Your task to perform on an android device: toggle javascript in the chrome app Image 0: 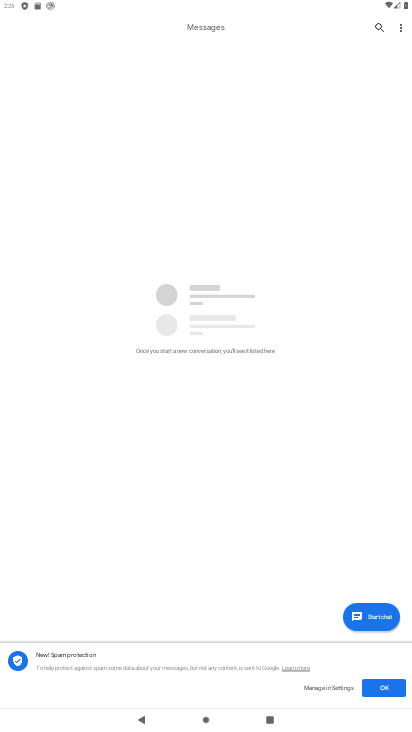
Step 0: press home button
Your task to perform on an android device: toggle javascript in the chrome app Image 1: 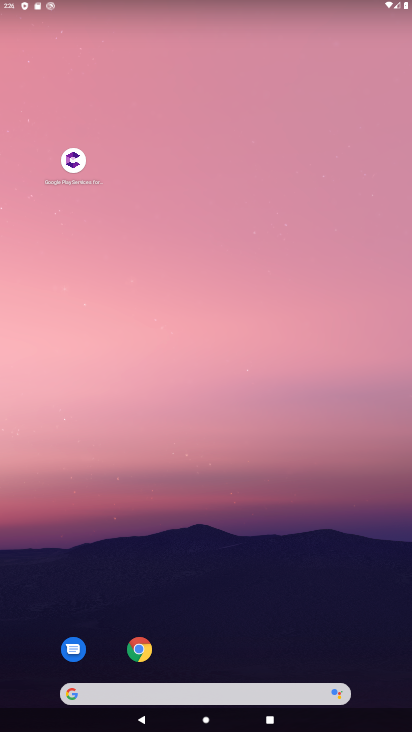
Step 1: drag from (199, 619) to (157, 132)
Your task to perform on an android device: toggle javascript in the chrome app Image 2: 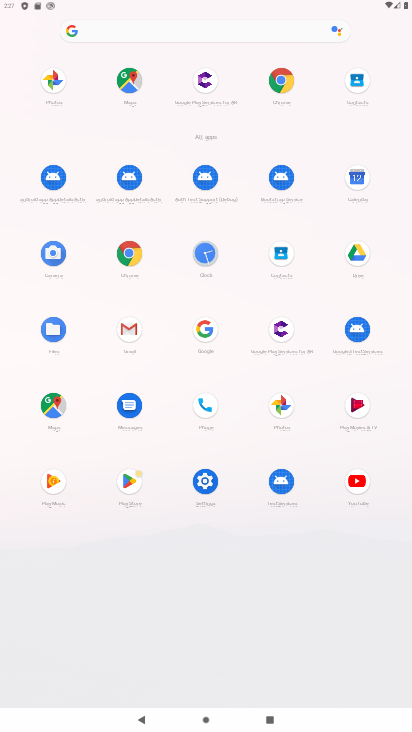
Step 2: click (288, 70)
Your task to perform on an android device: toggle javascript in the chrome app Image 3: 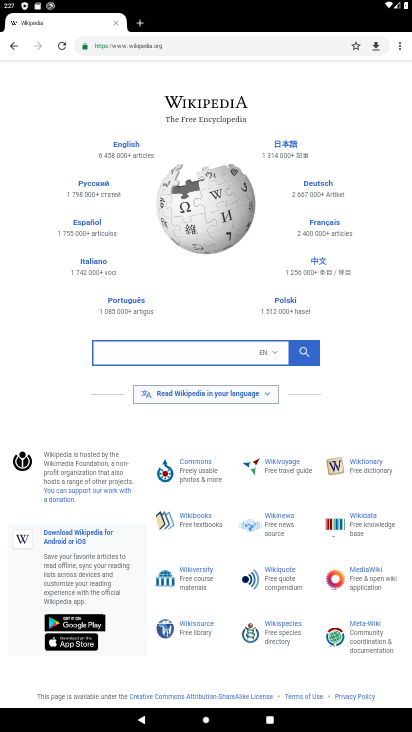
Step 3: drag from (395, 41) to (293, 301)
Your task to perform on an android device: toggle javascript in the chrome app Image 4: 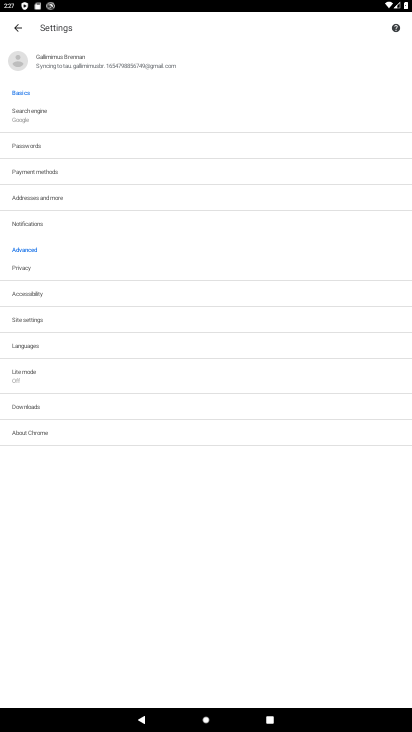
Step 4: click (6, 313)
Your task to perform on an android device: toggle javascript in the chrome app Image 5: 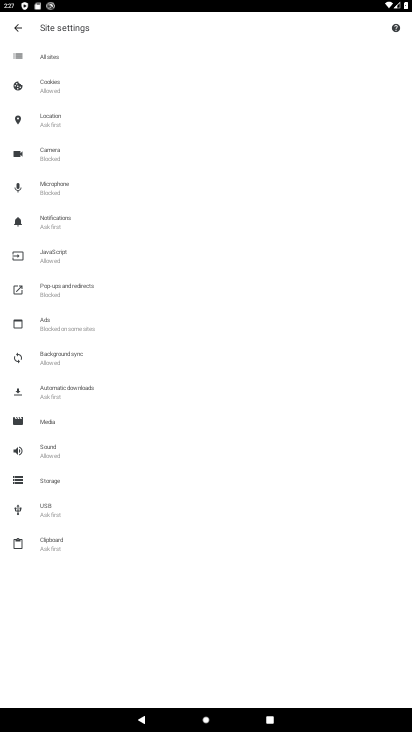
Step 5: click (52, 257)
Your task to perform on an android device: toggle javascript in the chrome app Image 6: 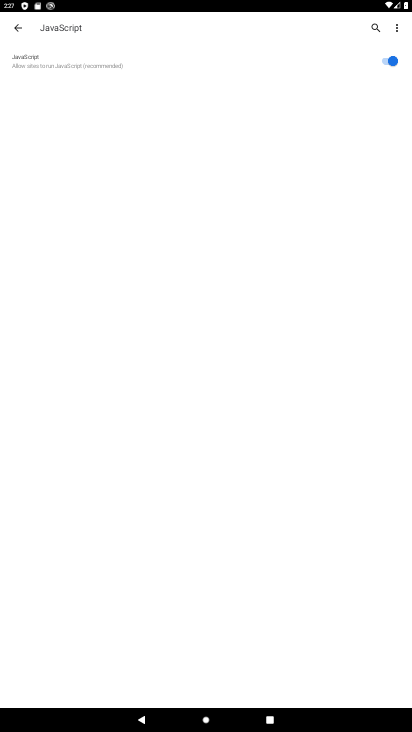
Step 6: click (365, 68)
Your task to perform on an android device: toggle javascript in the chrome app Image 7: 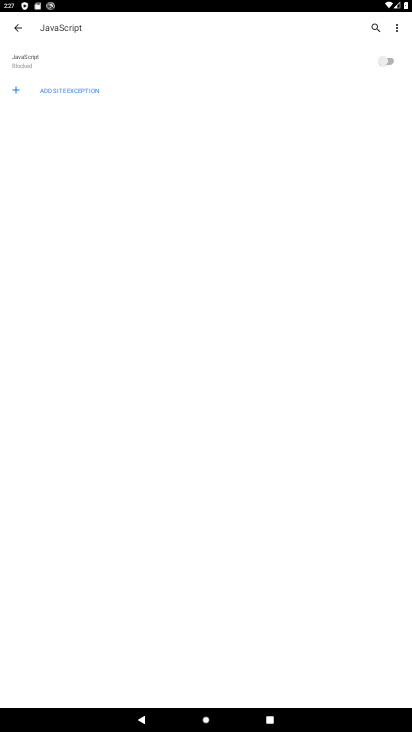
Step 7: task complete